Your task to perform on an android device: remove spam from my inbox in the gmail app Image 0: 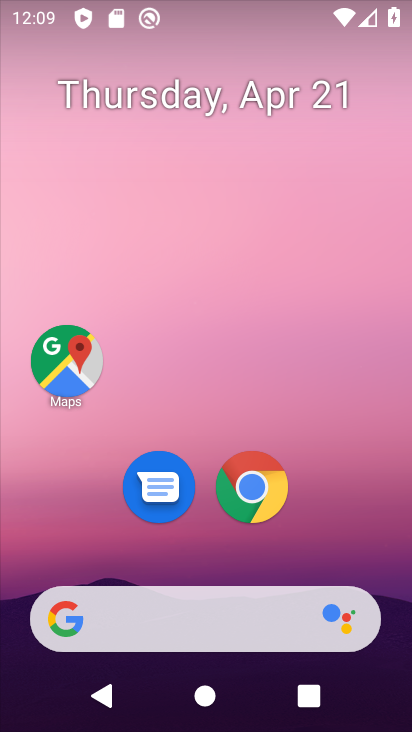
Step 0: drag from (338, 160) to (330, 42)
Your task to perform on an android device: remove spam from my inbox in the gmail app Image 1: 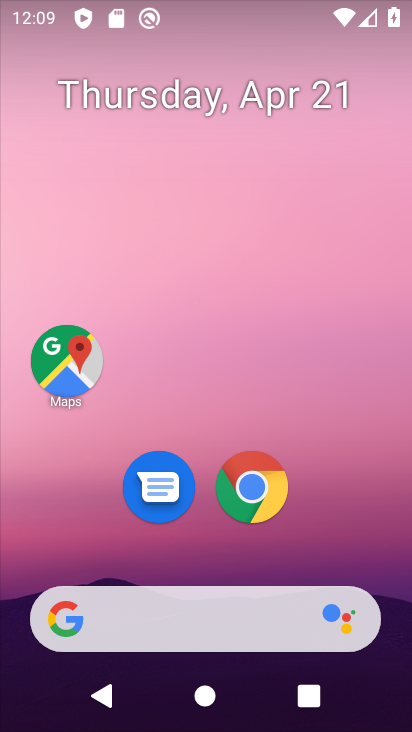
Step 1: drag from (338, 560) to (350, 49)
Your task to perform on an android device: remove spam from my inbox in the gmail app Image 2: 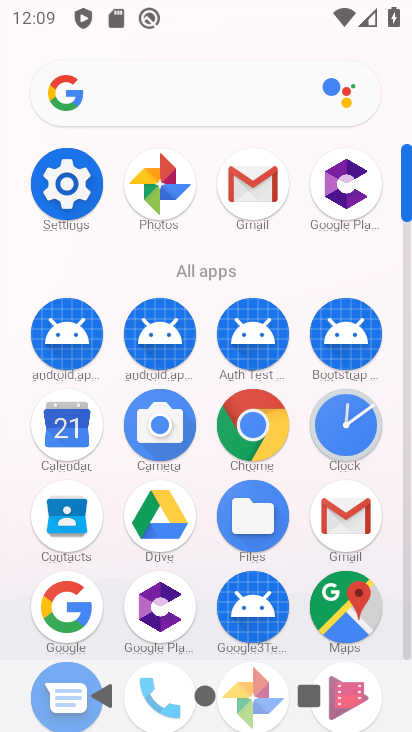
Step 2: click (409, 638)
Your task to perform on an android device: remove spam from my inbox in the gmail app Image 3: 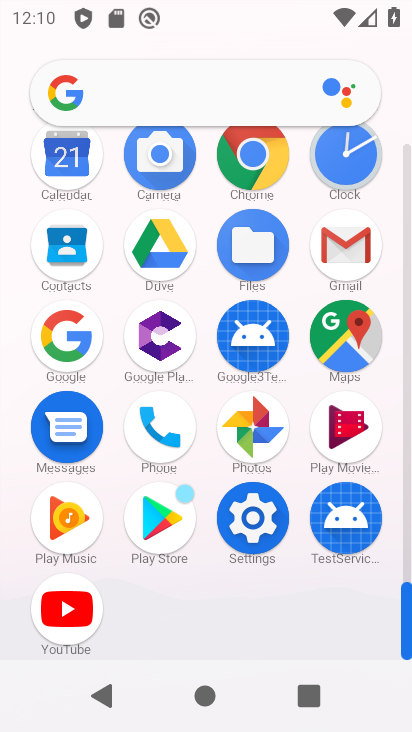
Step 3: click (364, 255)
Your task to perform on an android device: remove spam from my inbox in the gmail app Image 4: 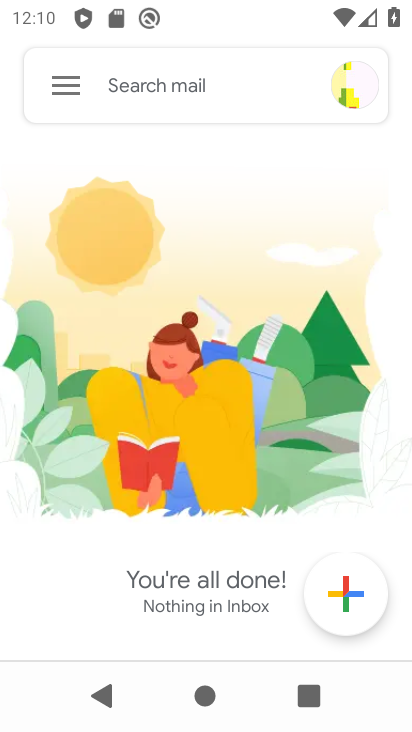
Step 4: click (73, 90)
Your task to perform on an android device: remove spam from my inbox in the gmail app Image 5: 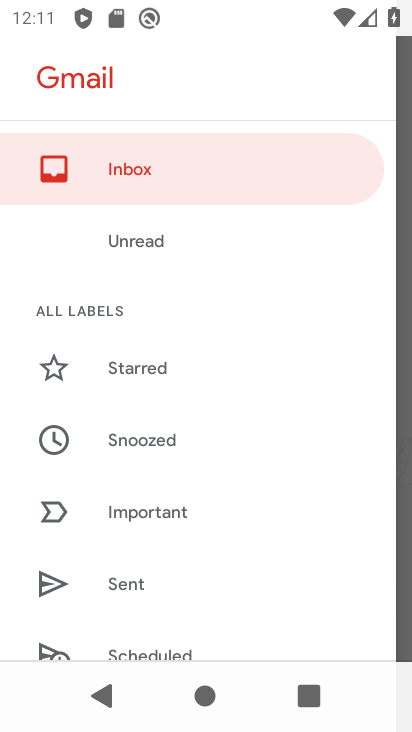
Step 5: task complete